Your task to perform on an android device: What is the recent news? Image 0: 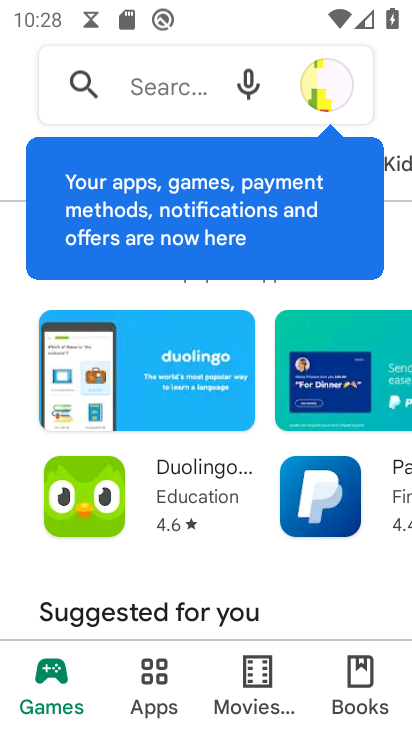
Step 0: press home button
Your task to perform on an android device: What is the recent news? Image 1: 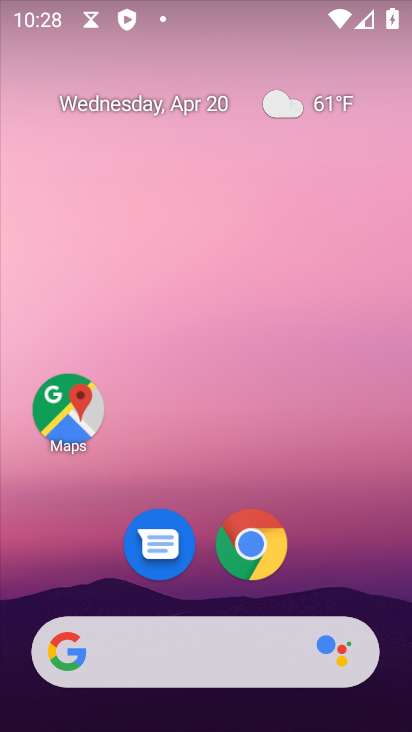
Step 1: task complete